Your task to perform on an android device: Search for "razer blade" on amazon.com, select the first entry, and add it to the cart. Image 0: 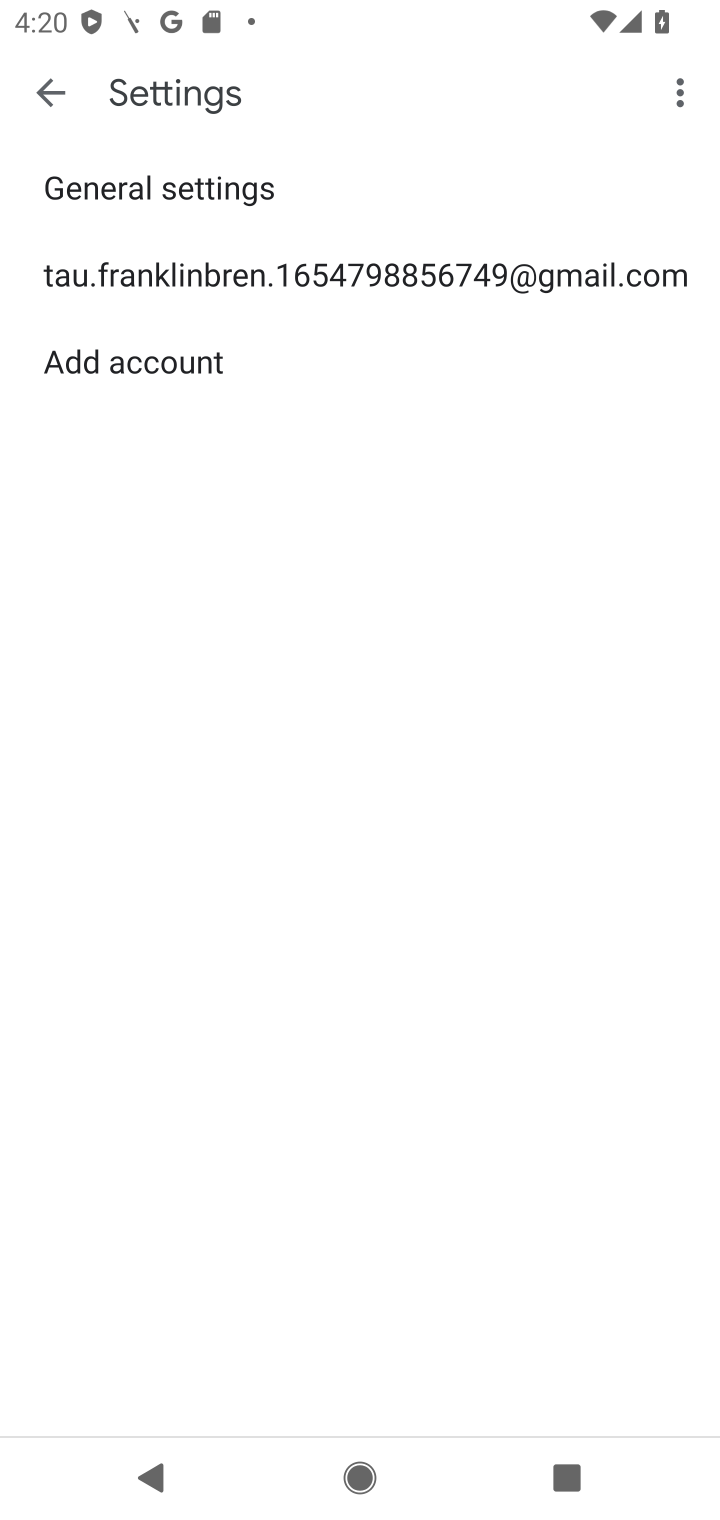
Step 0: press home button
Your task to perform on an android device: Search for "razer blade" on amazon.com, select the first entry, and add it to the cart. Image 1: 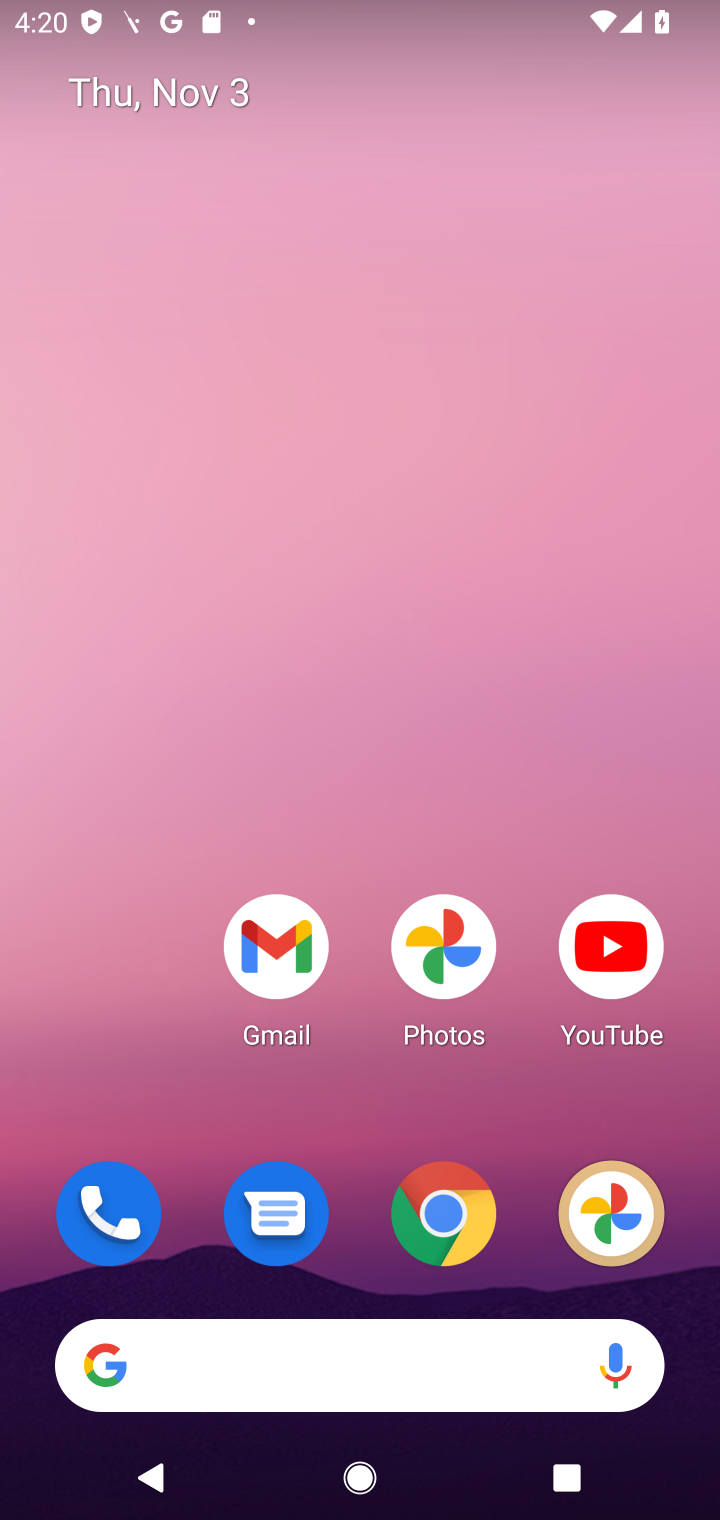
Step 1: click (451, 1226)
Your task to perform on an android device: Search for "razer blade" on amazon.com, select the first entry, and add it to the cart. Image 2: 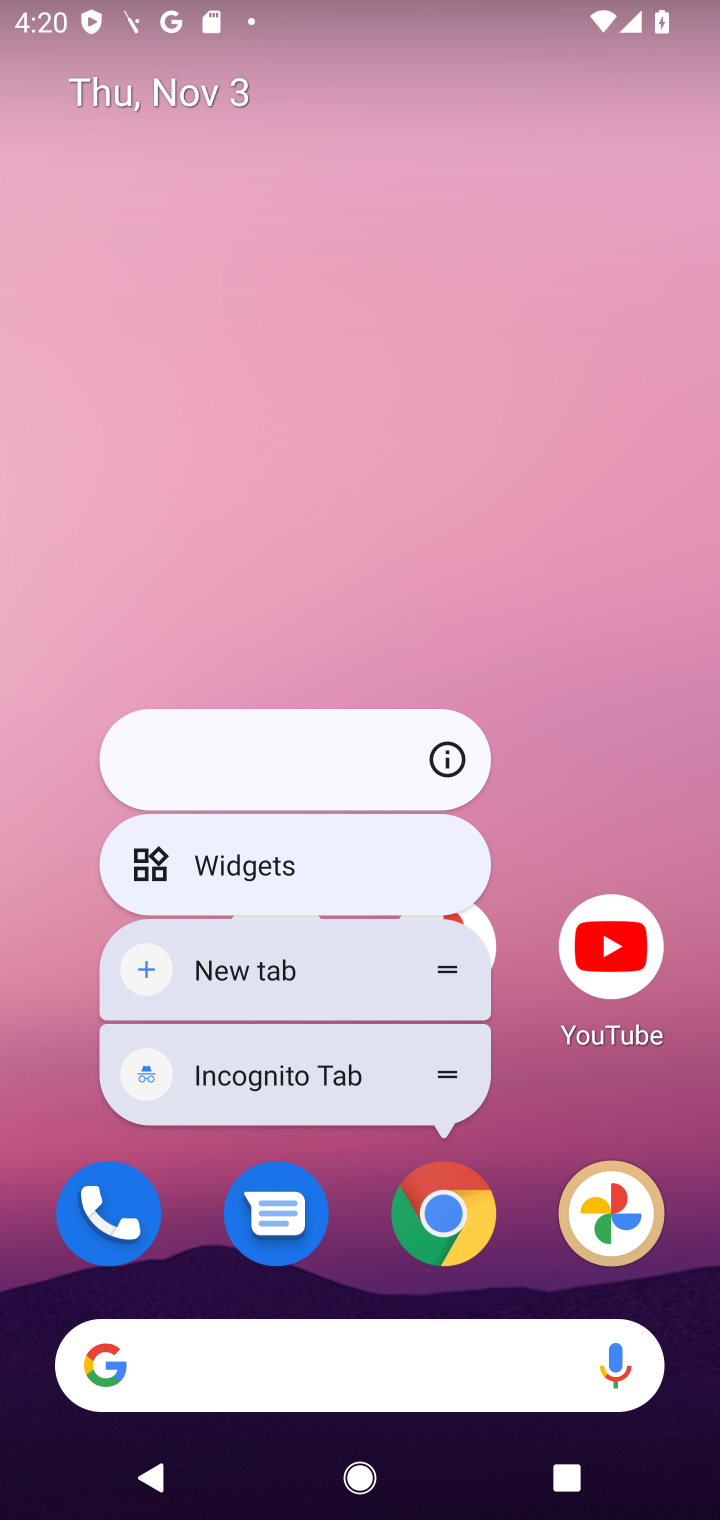
Step 2: click (451, 1226)
Your task to perform on an android device: Search for "razer blade" on amazon.com, select the first entry, and add it to the cart. Image 3: 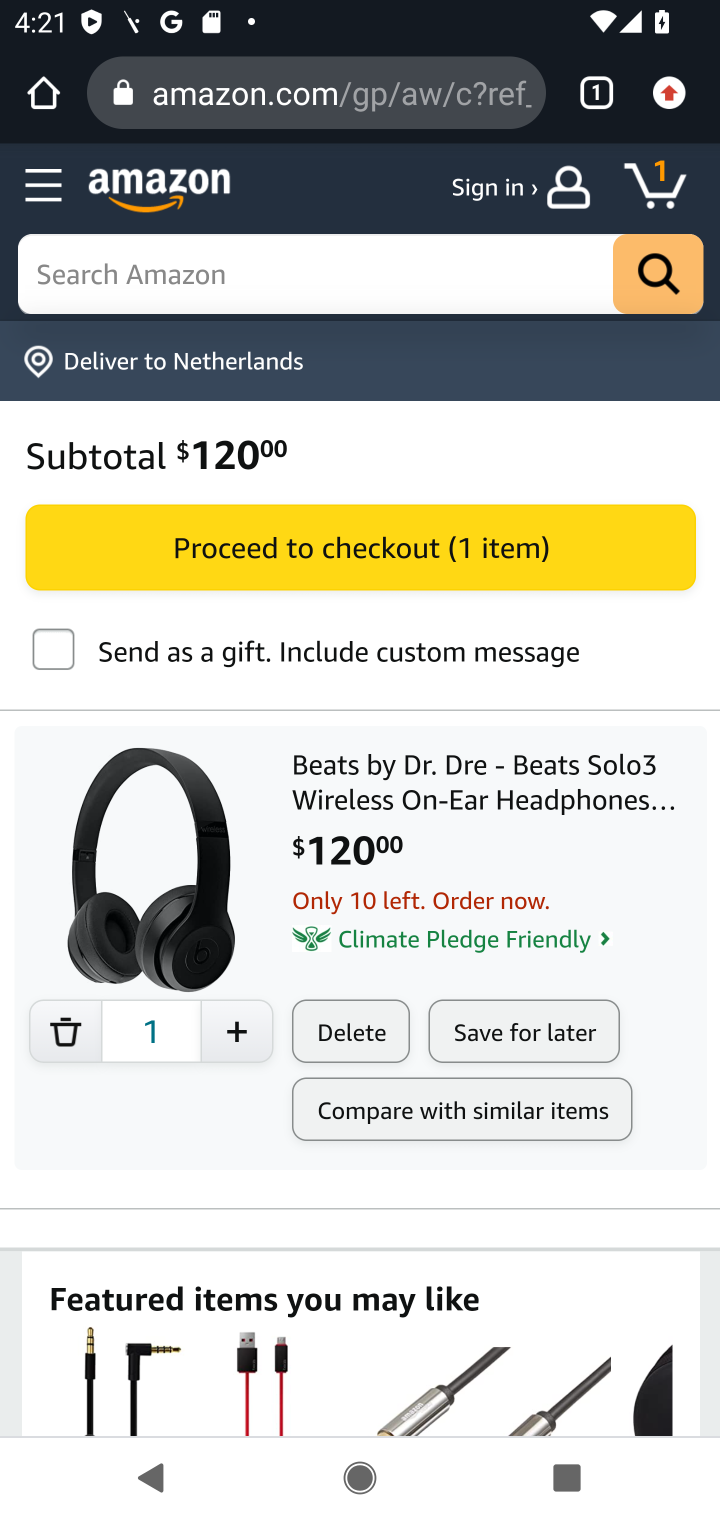
Step 3: click (164, 297)
Your task to perform on an android device: Search for "razer blade" on amazon.com, select the first entry, and add it to the cart. Image 4: 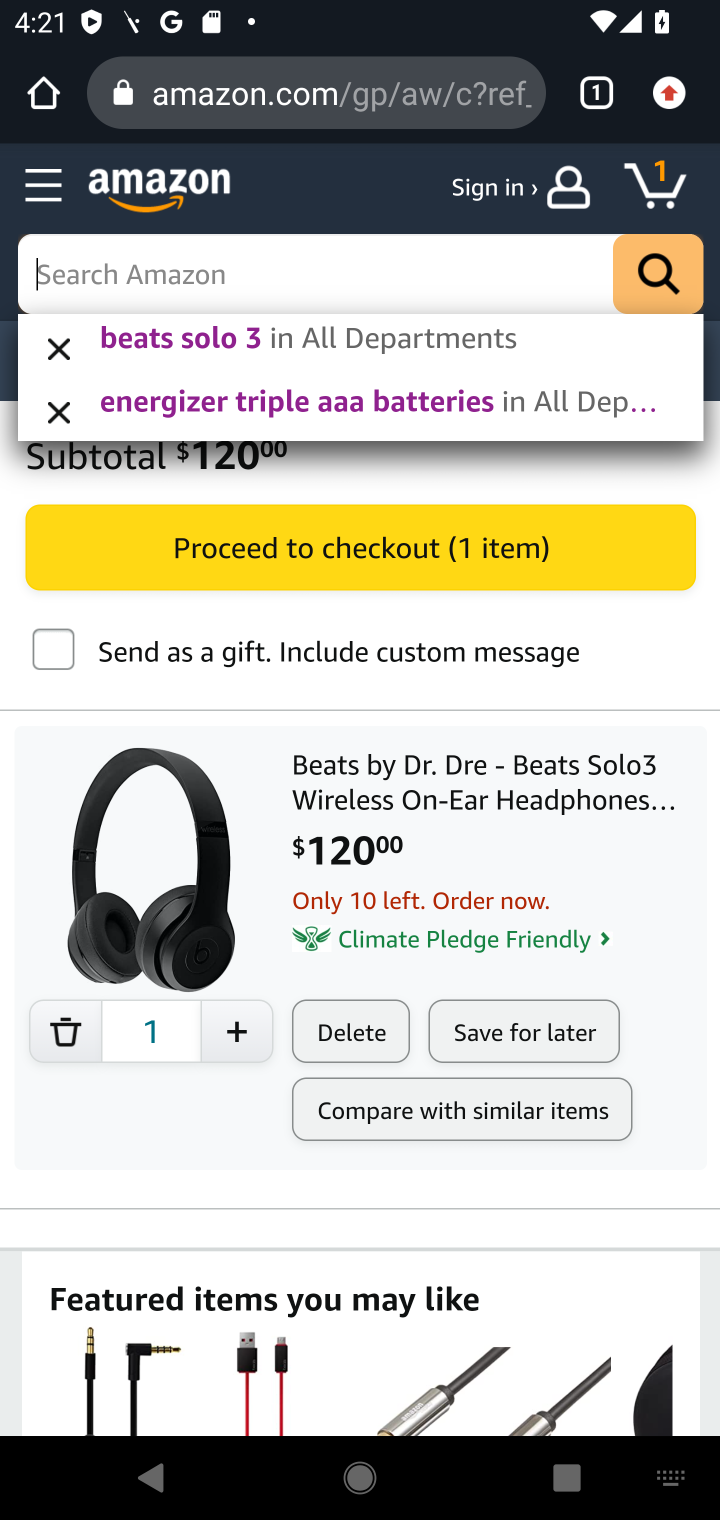
Step 4: type "razer blade"
Your task to perform on an android device: Search for "razer blade" on amazon.com, select the first entry, and add it to the cart. Image 5: 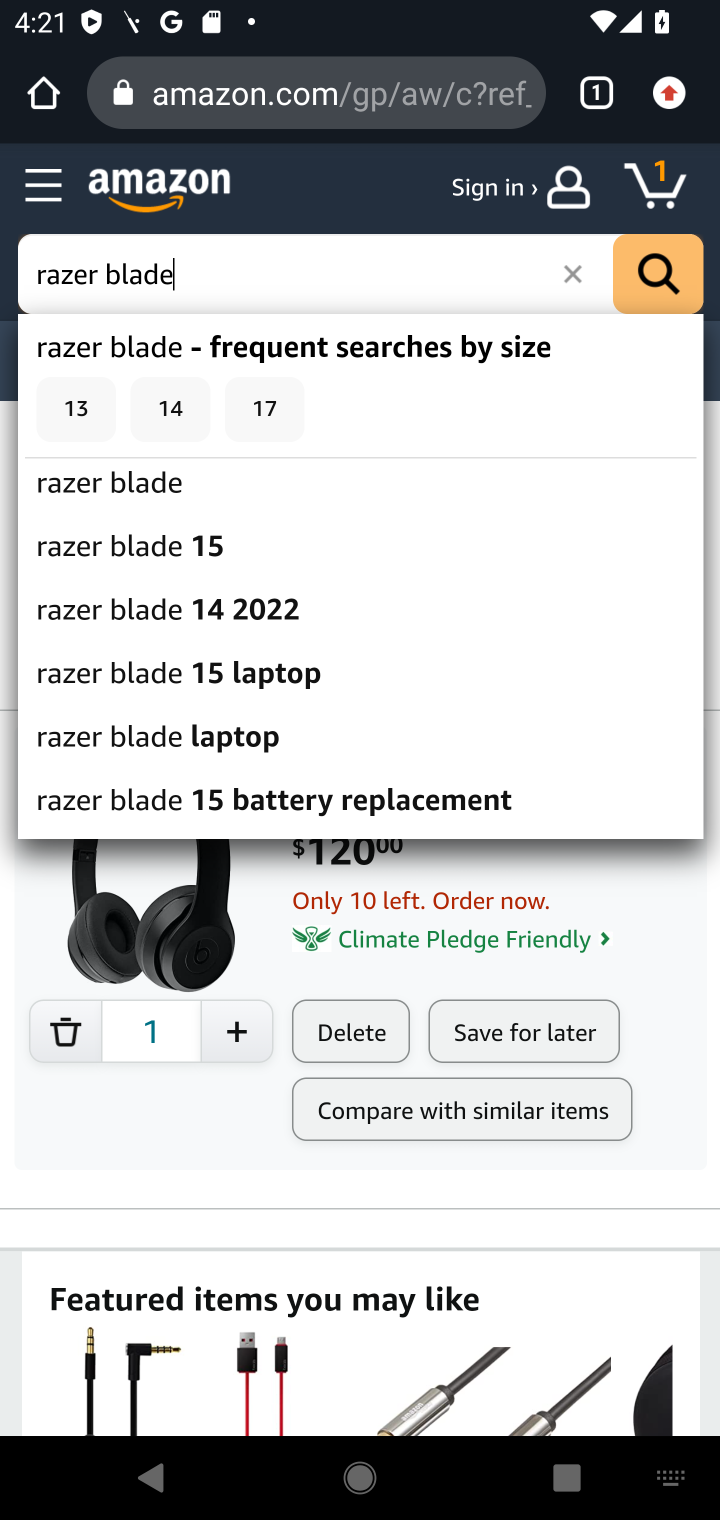
Step 5: click (88, 505)
Your task to perform on an android device: Search for "razer blade" on amazon.com, select the first entry, and add it to the cart. Image 6: 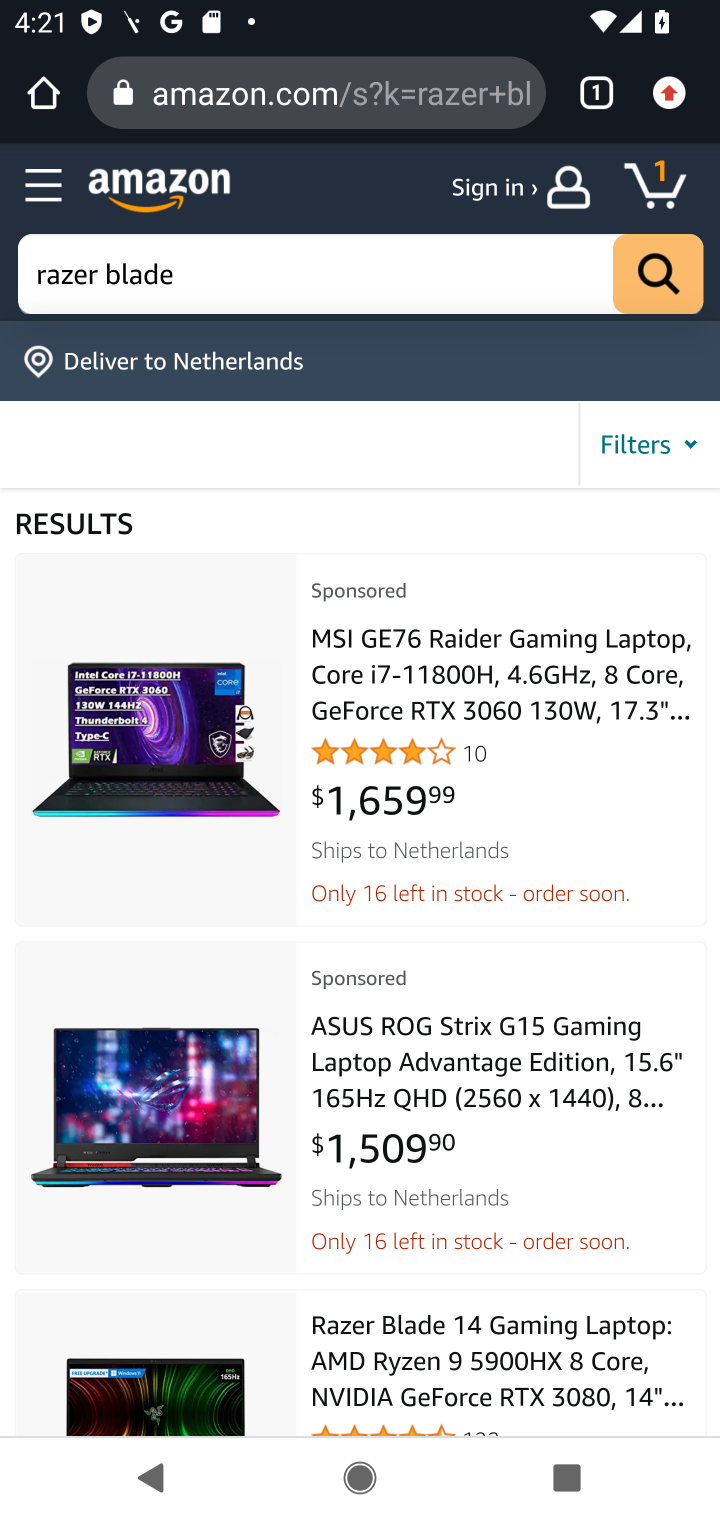
Step 6: task complete